Your task to perform on an android device: Open the phone app and click the voicemail tab. Image 0: 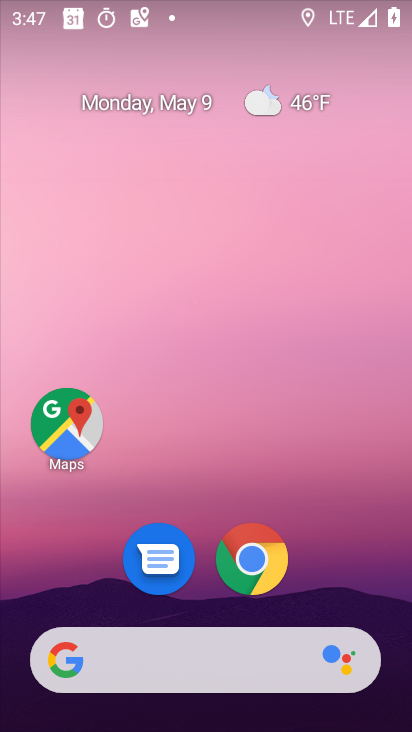
Step 0: drag from (185, 463) to (288, 31)
Your task to perform on an android device: Open the phone app and click the voicemail tab. Image 1: 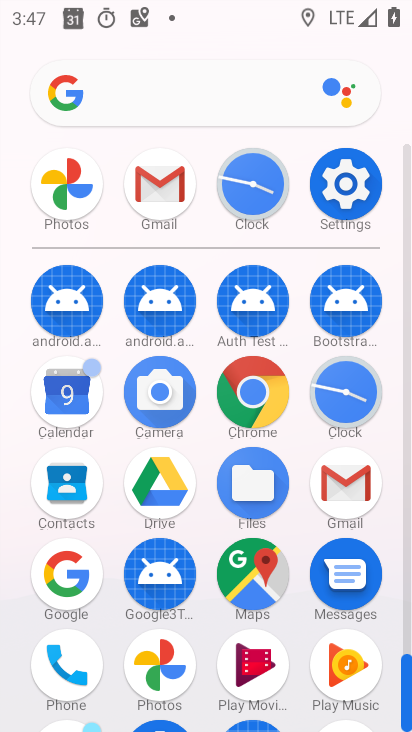
Step 1: drag from (114, 619) to (119, 424)
Your task to perform on an android device: Open the phone app and click the voicemail tab. Image 2: 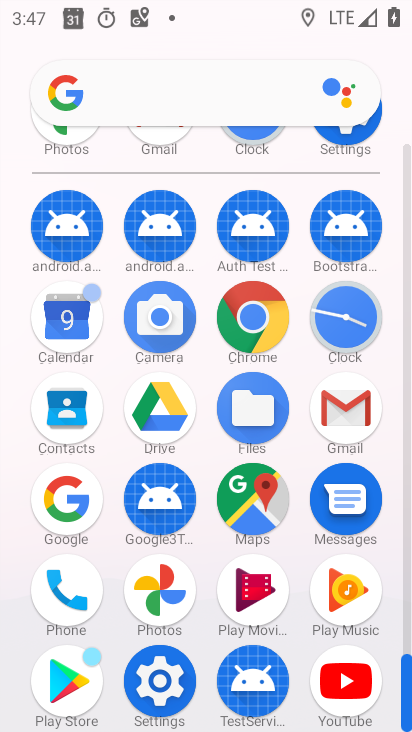
Step 2: click (70, 591)
Your task to perform on an android device: Open the phone app and click the voicemail tab. Image 3: 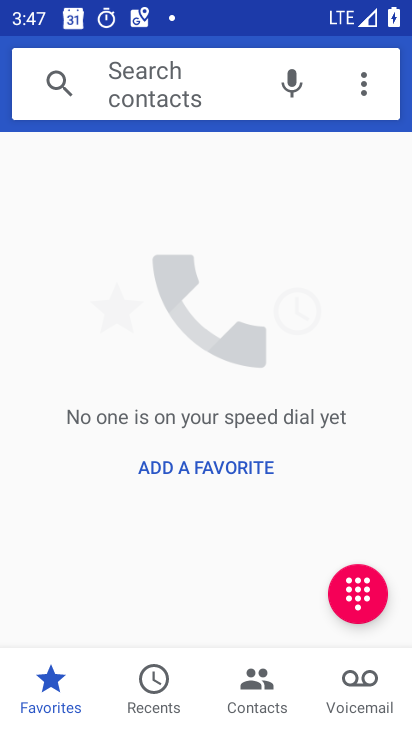
Step 3: click (376, 669)
Your task to perform on an android device: Open the phone app and click the voicemail tab. Image 4: 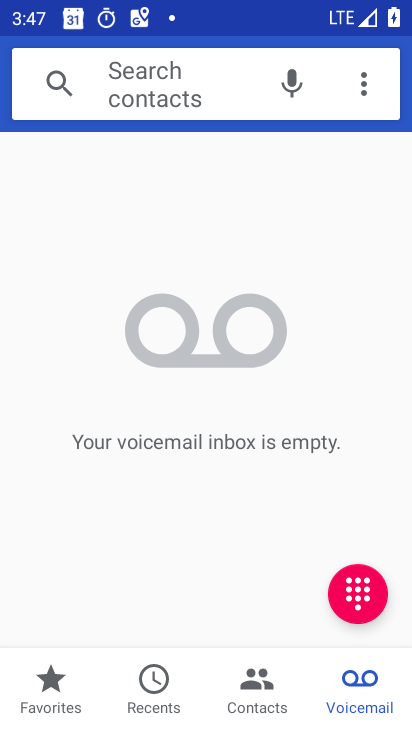
Step 4: task complete